Your task to perform on an android device: remove spam from my inbox in the gmail app Image 0: 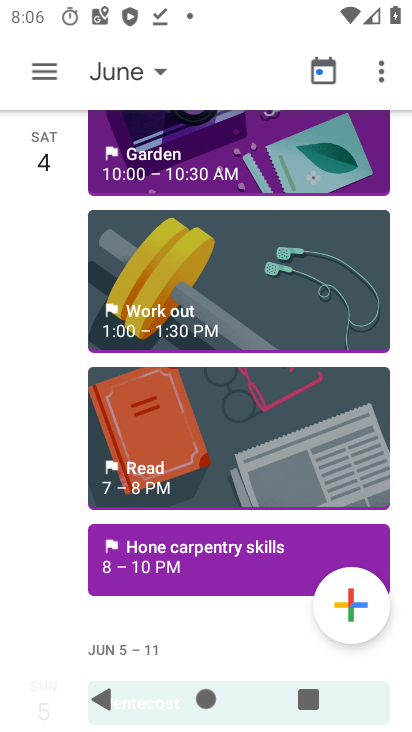
Step 0: press home button
Your task to perform on an android device: remove spam from my inbox in the gmail app Image 1: 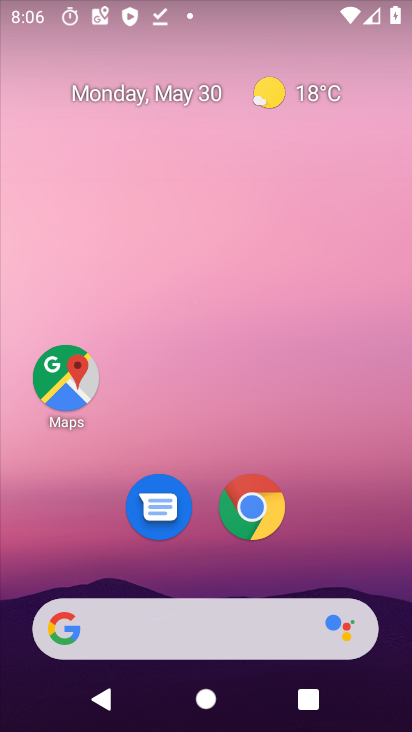
Step 1: drag from (375, 535) to (348, 147)
Your task to perform on an android device: remove spam from my inbox in the gmail app Image 2: 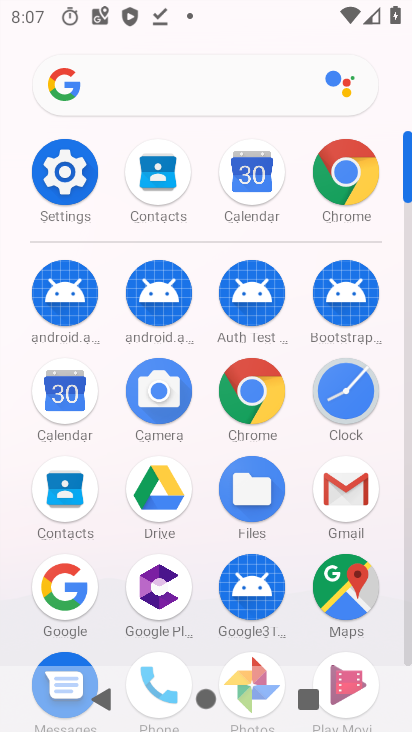
Step 2: click (348, 512)
Your task to perform on an android device: remove spam from my inbox in the gmail app Image 3: 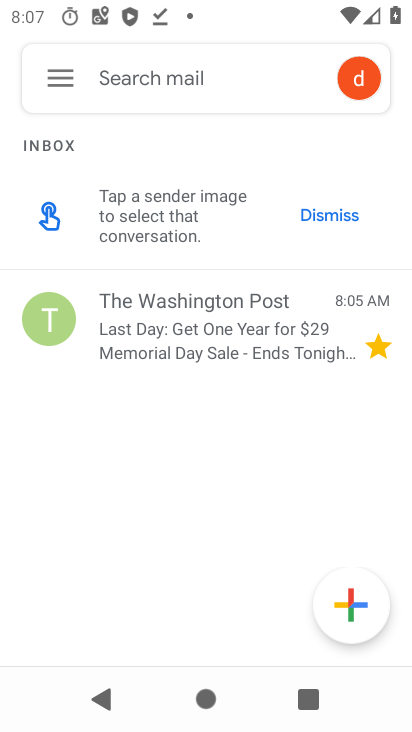
Step 3: click (53, 60)
Your task to perform on an android device: remove spam from my inbox in the gmail app Image 4: 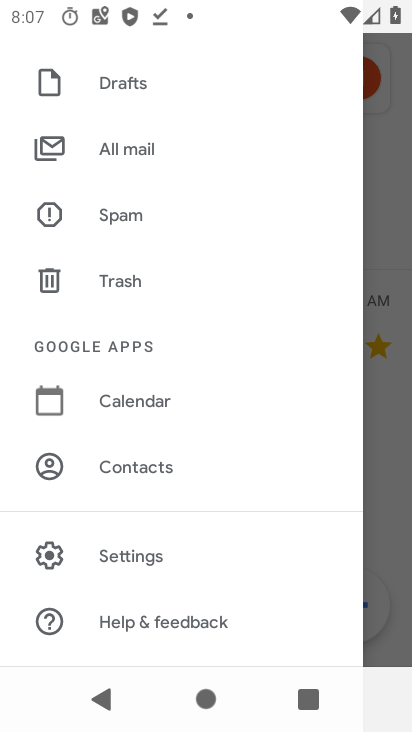
Step 4: click (169, 211)
Your task to perform on an android device: remove spam from my inbox in the gmail app Image 5: 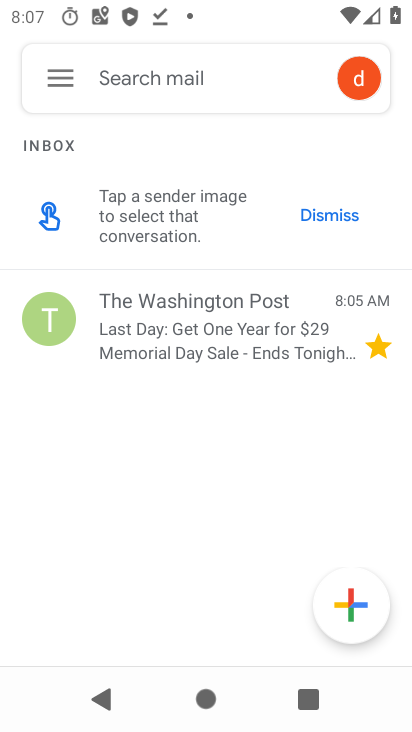
Step 5: click (55, 56)
Your task to perform on an android device: remove spam from my inbox in the gmail app Image 6: 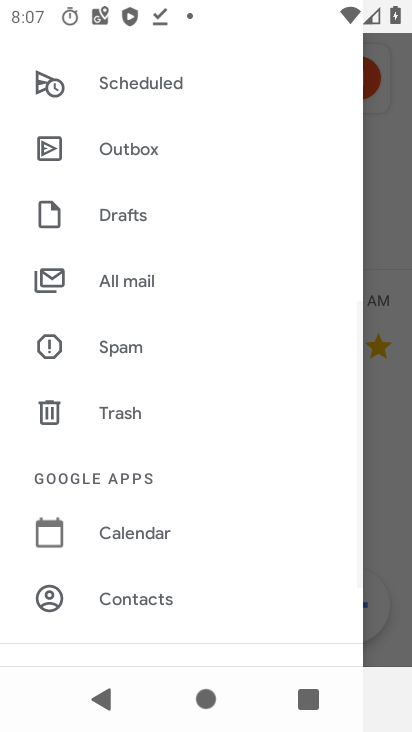
Step 6: click (130, 352)
Your task to perform on an android device: remove spam from my inbox in the gmail app Image 7: 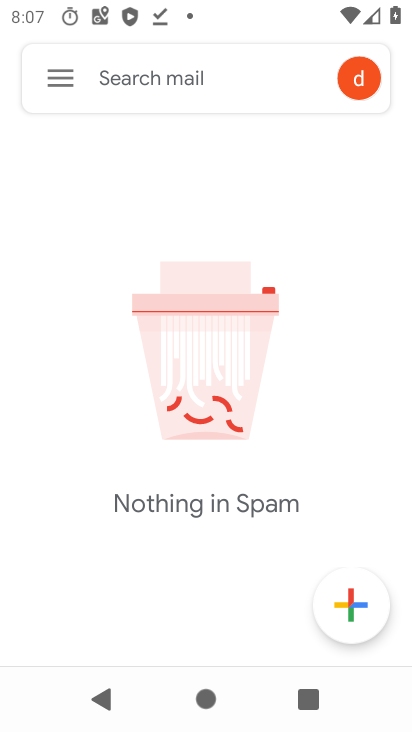
Step 7: task complete